Your task to perform on an android device: show emergency info Image 0: 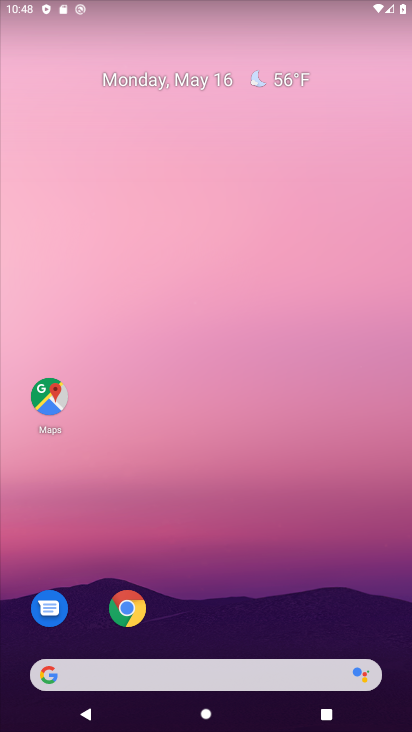
Step 0: drag from (360, 589) to (333, 221)
Your task to perform on an android device: show emergency info Image 1: 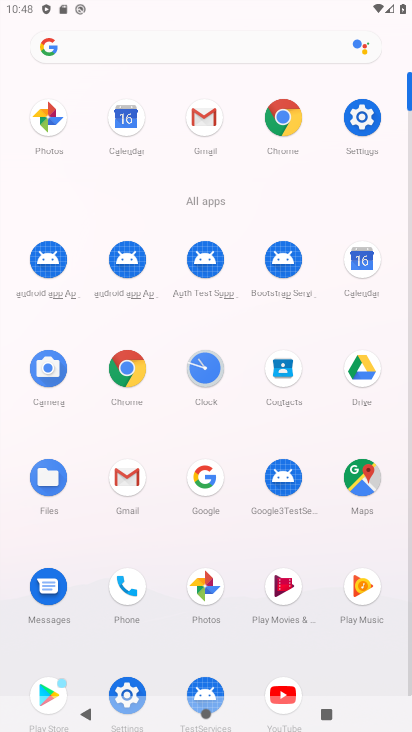
Step 1: click (374, 123)
Your task to perform on an android device: show emergency info Image 2: 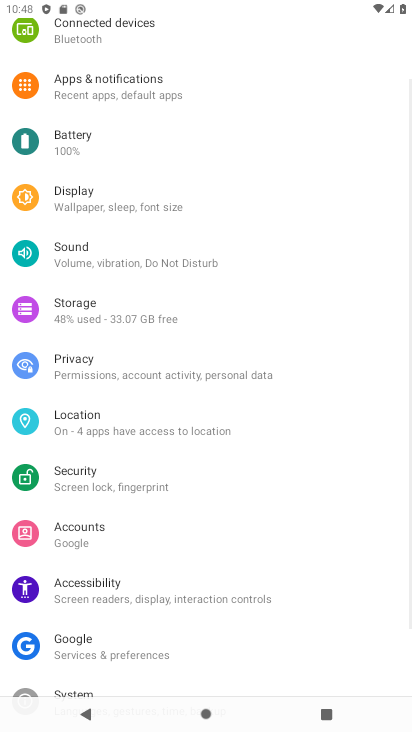
Step 2: drag from (200, 583) to (259, 160)
Your task to perform on an android device: show emergency info Image 3: 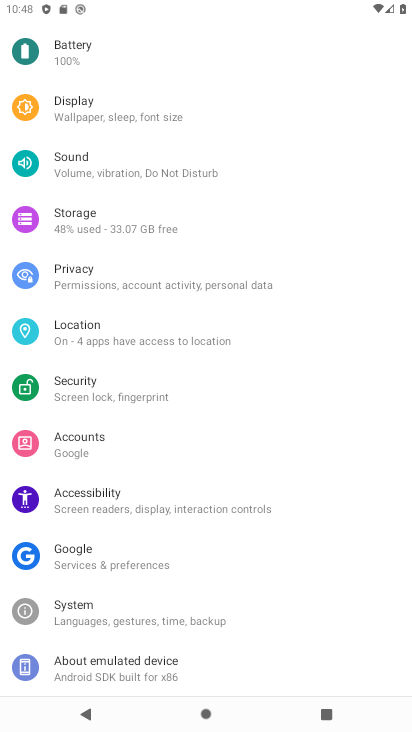
Step 3: click (128, 666)
Your task to perform on an android device: show emergency info Image 4: 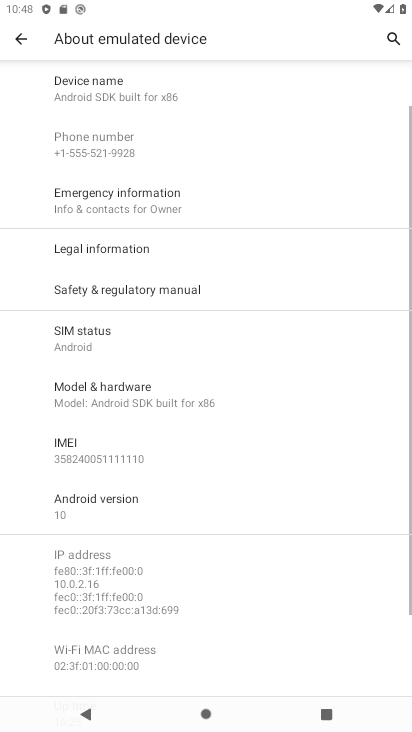
Step 4: drag from (258, 638) to (297, 630)
Your task to perform on an android device: show emergency info Image 5: 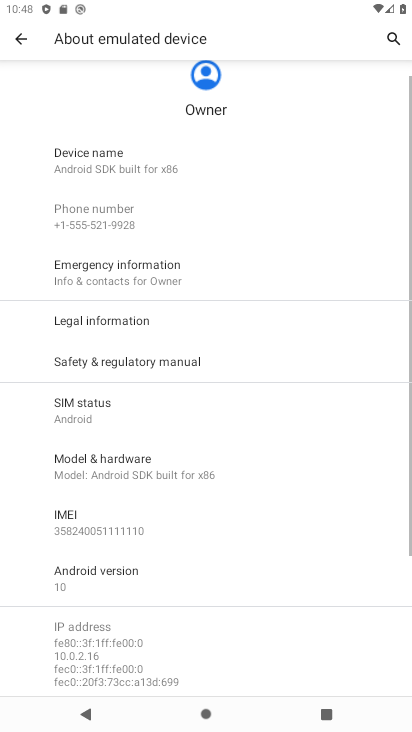
Step 5: click (152, 269)
Your task to perform on an android device: show emergency info Image 6: 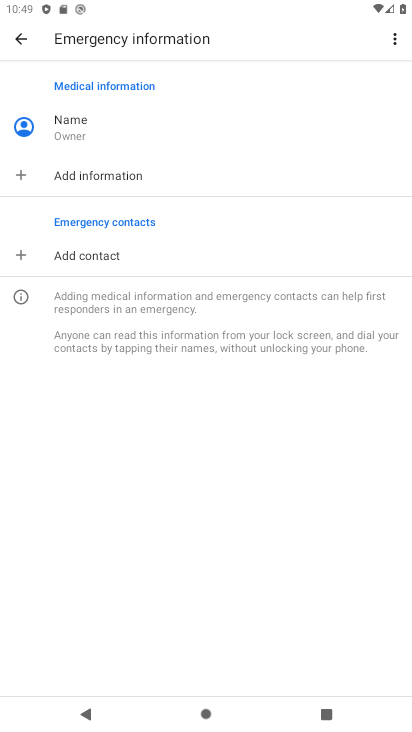
Step 6: task complete